Your task to perform on an android device: find photos in the google photos app Image 0: 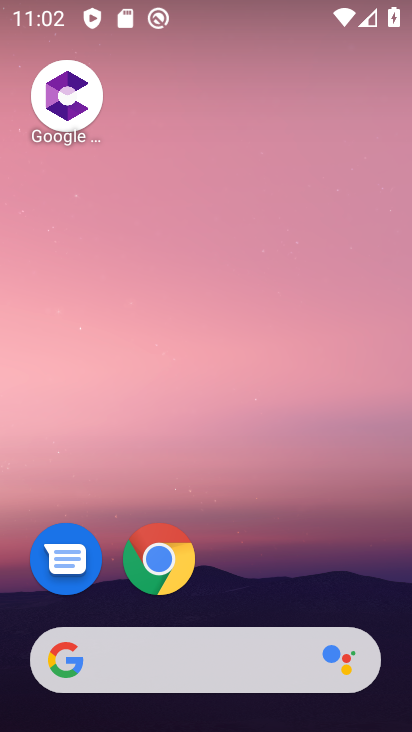
Step 0: drag from (243, 502) to (234, 22)
Your task to perform on an android device: find photos in the google photos app Image 1: 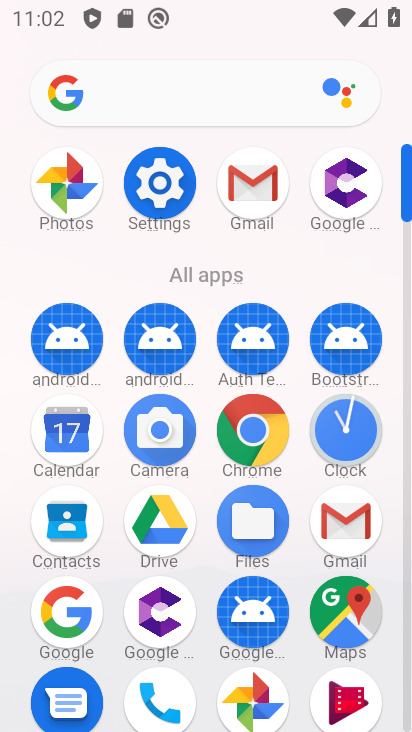
Step 1: click (251, 704)
Your task to perform on an android device: find photos in the google photos app Image 2: 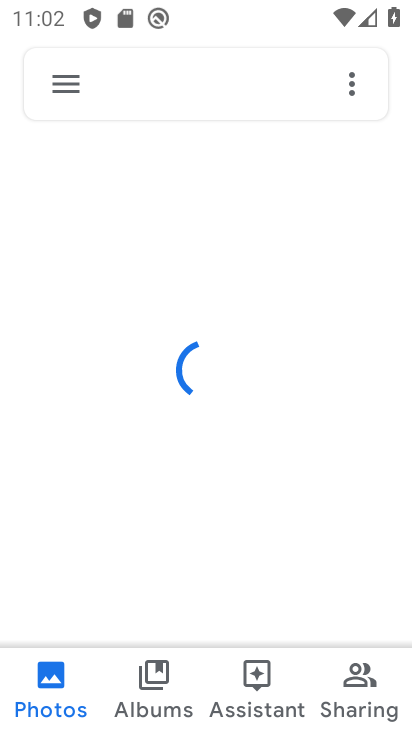
Step 2: click (42, 683)
Your task to perform on an android device: find photos in the google photos app Image 3: 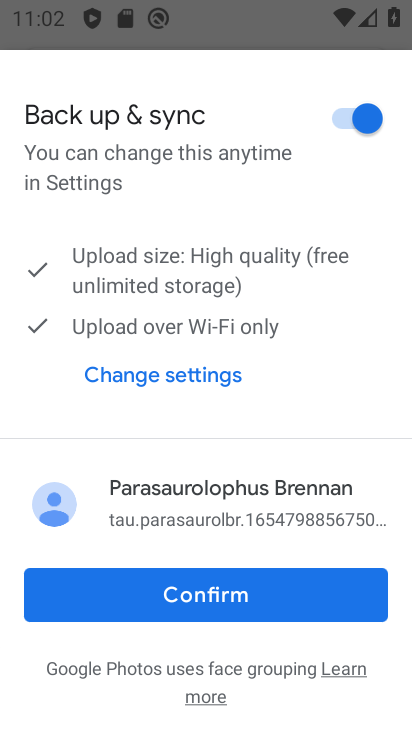
Step 3: click (204, 581)
Your task to perform on an android device: find photos in the google photos app Image 4: 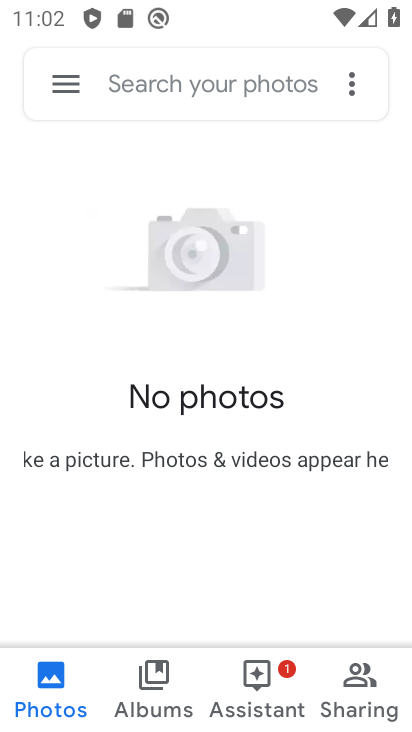
Step 4: task complete